Your task to perform on an android device: choose inbox layout in the gmail app Image 0: 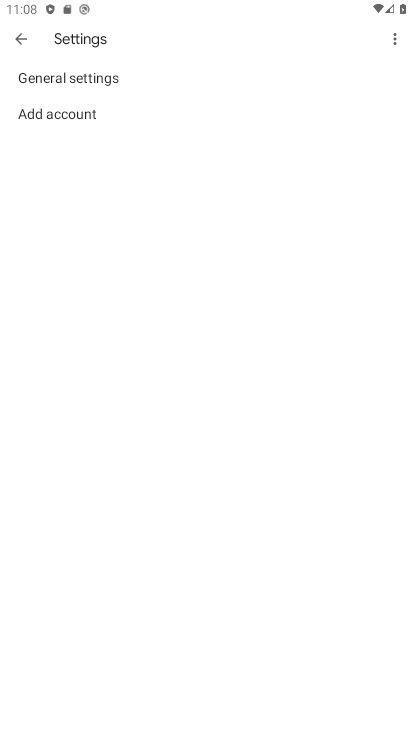
Step 0: press home button
Your task to perform on an android device: choose inbox layout in the gmail app Image 1: 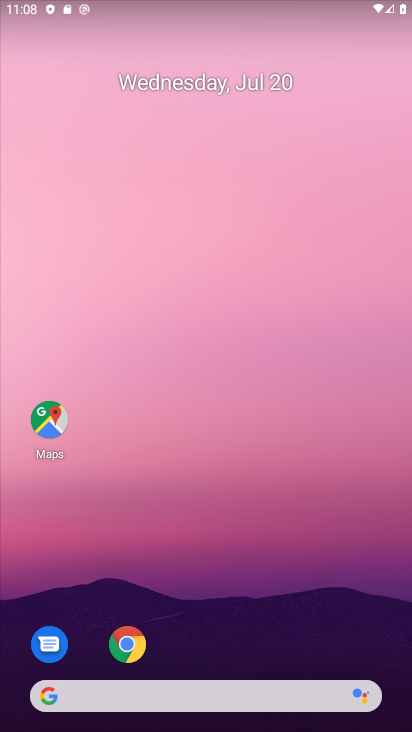
Step 1: drag from (161, 414) to (173, 171)
Your task to perform on an android device: choose inbox layout in the gmail app Image 2: 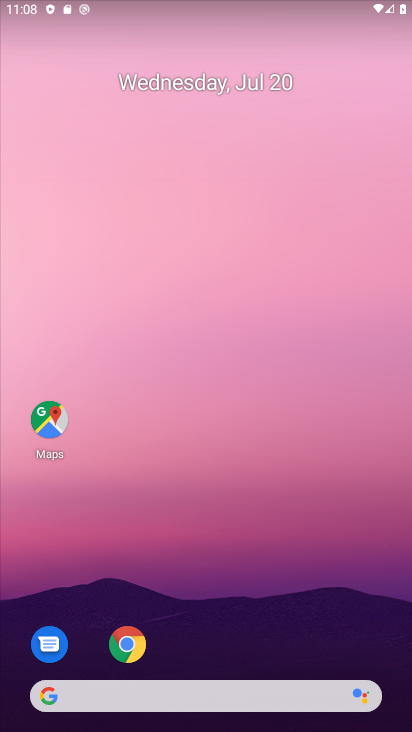
Step 2: drag from (233, 720) to (241, 95)
Your task to perform on an android device: choose inbox layout in the gmail app Image 3: 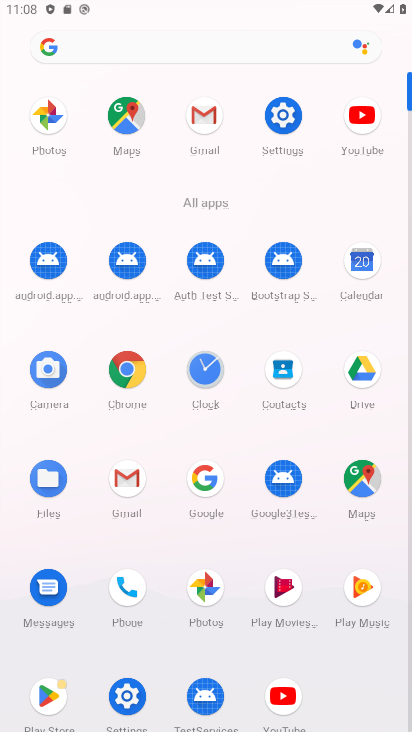
Step 3: click (191, 116)
Your task to perform on an android device: choose inbox layout in the gmail app Image 4: 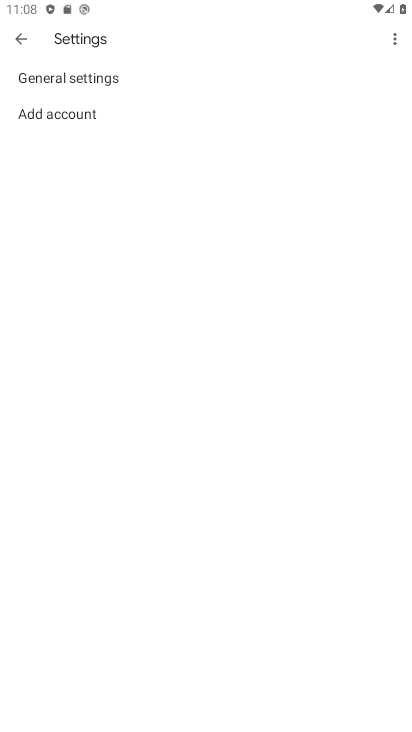
Step 4: click (24, 32)
Your task to perform on an android device: choose inbox layout in the gmail app Image 5: 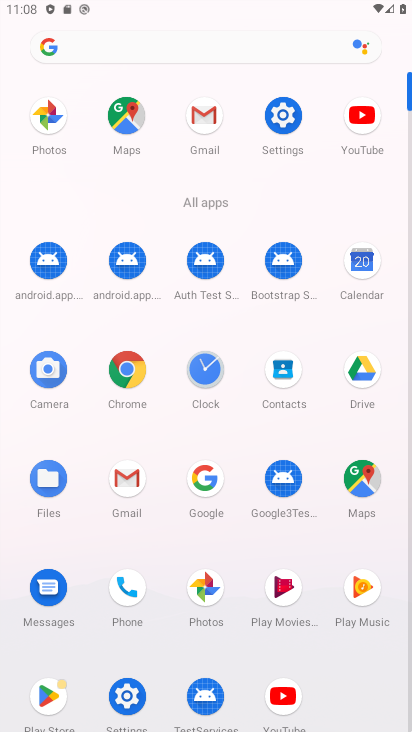
Step 5: click (203, 127)
Your task to perform on an android device: choose inbox layout in the gmail app Image 6: 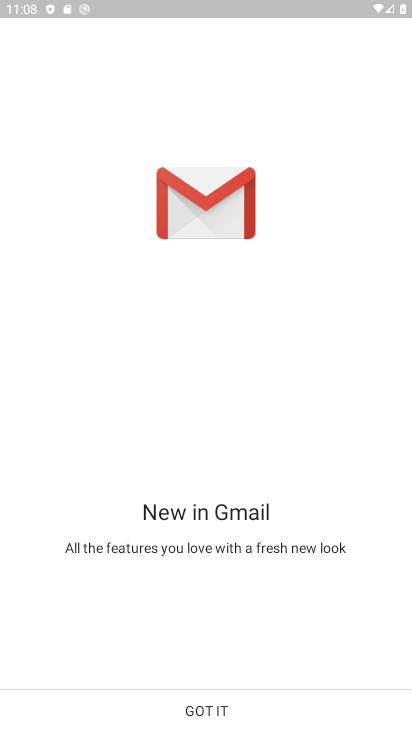
Step 6: click (267, 712)
Your task to perform on an android device: choose inbox layout in the gmail app Image 7: 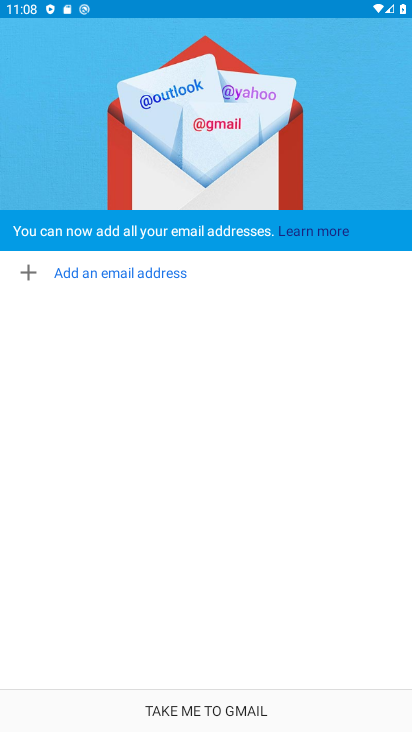
Step 7: click (267, 712)
Your task to perform on an android device: choose inbox layout in the gmail app Image 8: 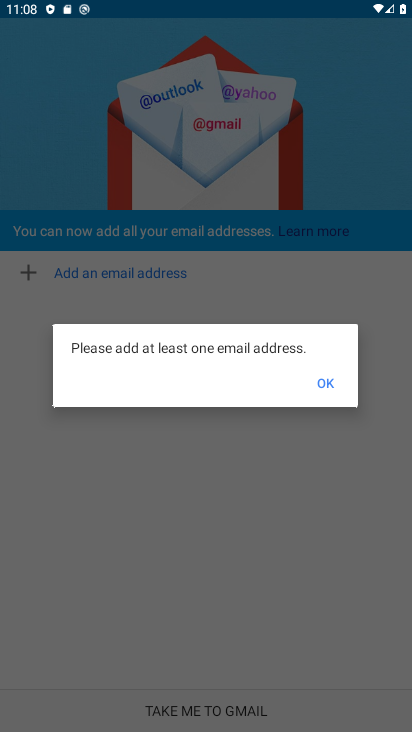
Step 8: click (327, 391)
Your task to perform on an android device: choose inbox layout in the gmail app Image 9: 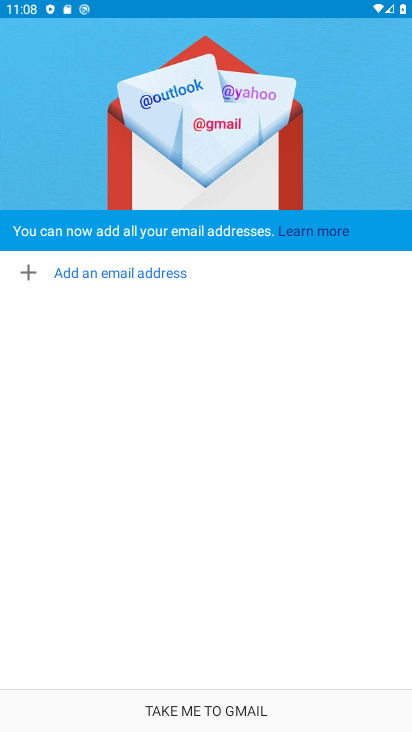
Step 9: task complete